Your task to perform on an android device: Search for flights from Mexico city to Boston Image 0: 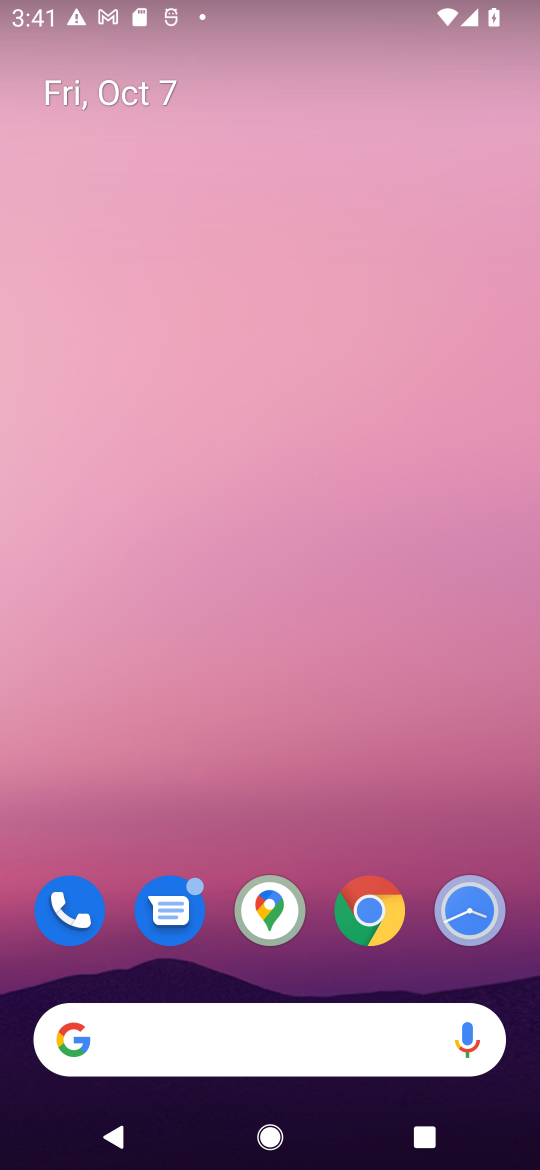
Step 0: click (229, 1022)
Your task to perform on an android device: Search for flights from Mexico city to Boston Image 1: 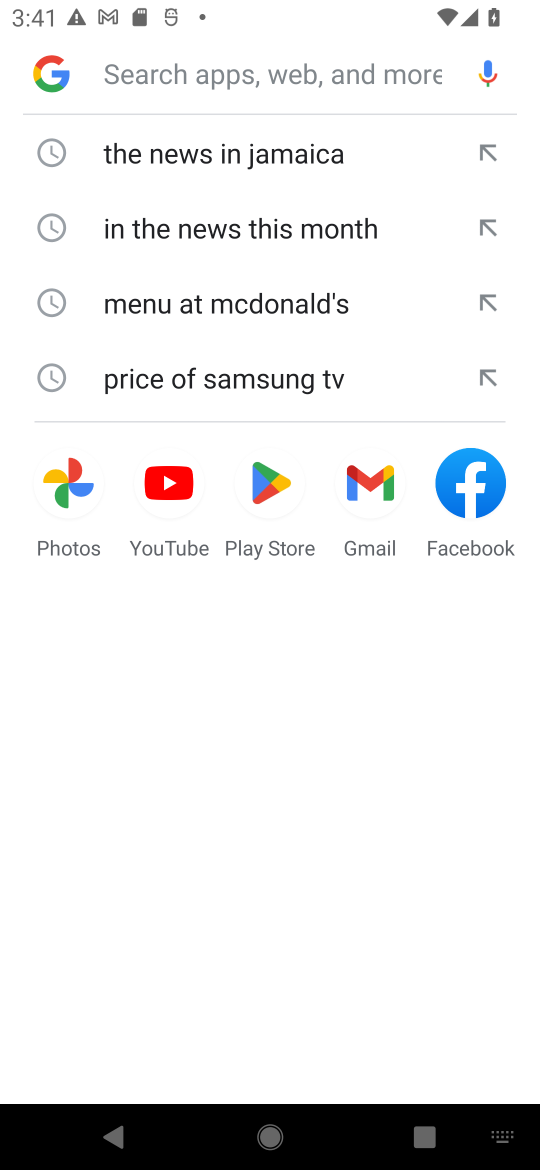
Step 1: type "flights from Mexico city to Boston"
Your task to perform on an android device: Search for flights from Mexico city to Boston Image 2: 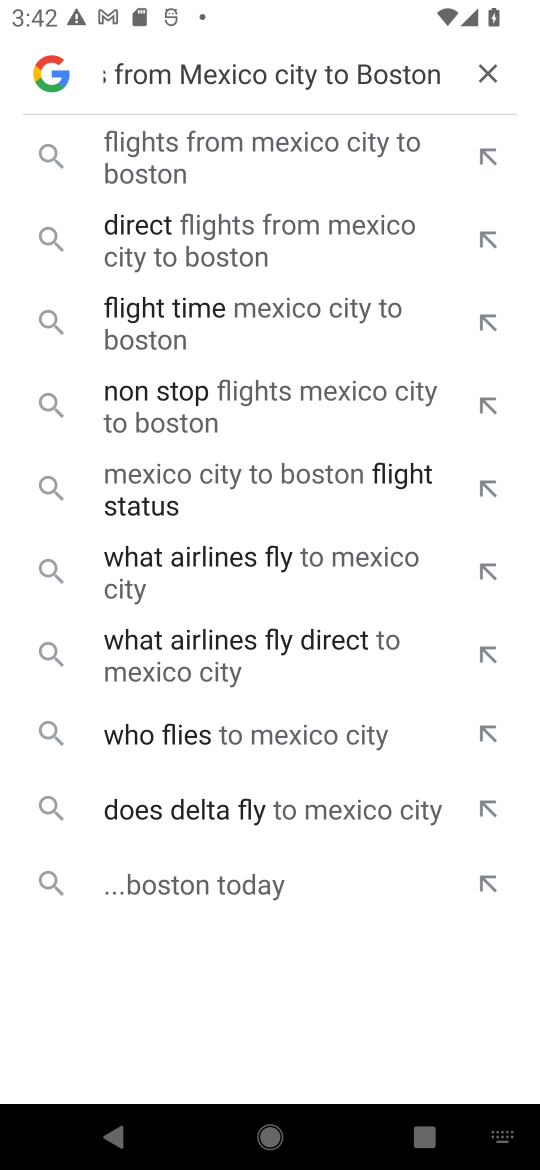
Step 2: click (177, 144)
Your task to perform on an android device: Search for flights from Mexico city to Boston Image 3: 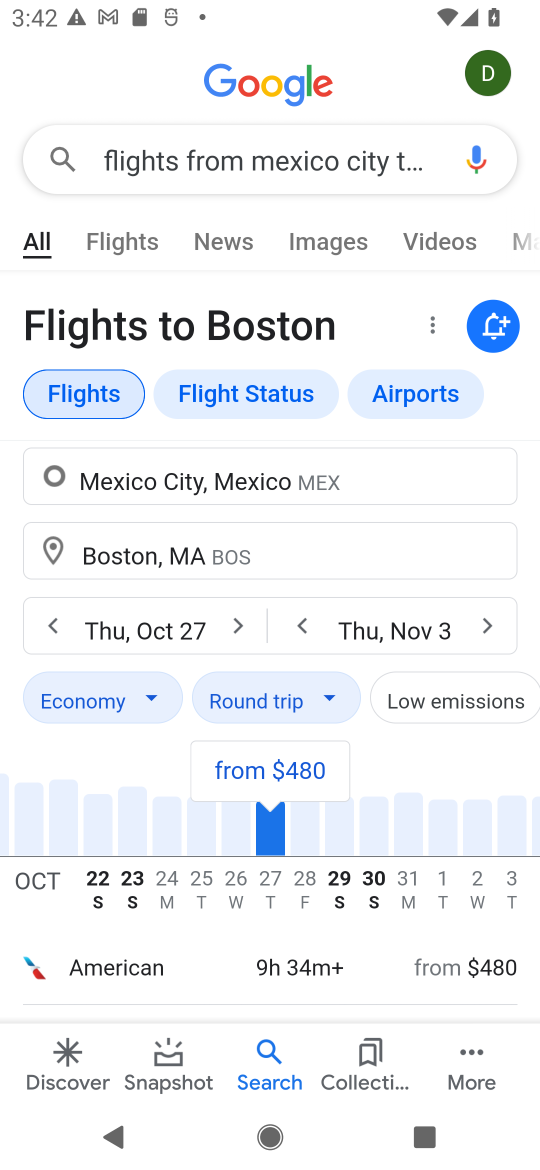
Step 3: task complete